Your task to perform on an android device: What's the weather today? Image 0: 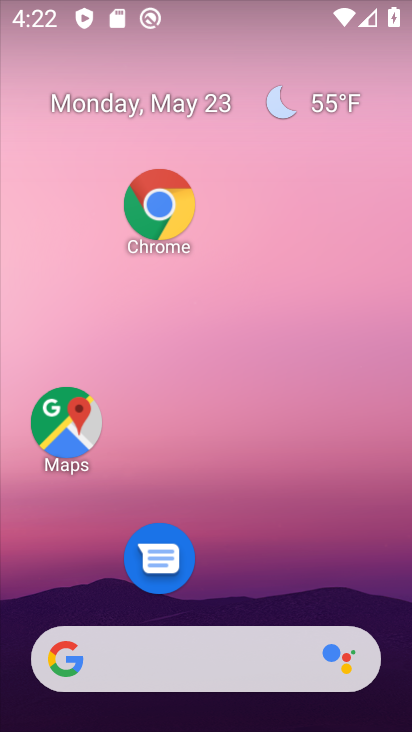
Step 0: drag from (351, 556) to (259, 39)
Your task to perform on an android device: What's the weather today? Image 1: 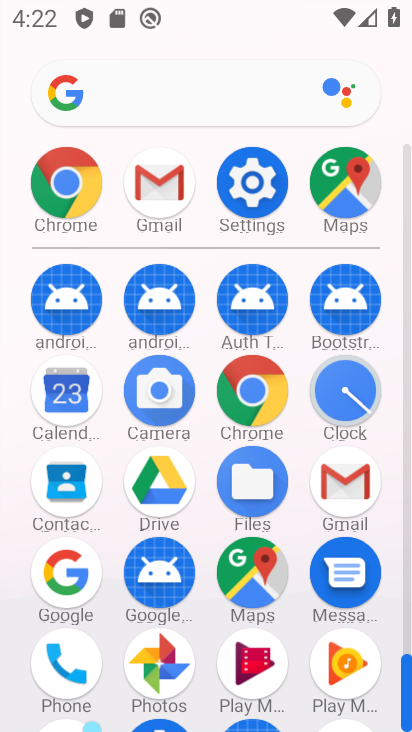
Step 1: drag from (364, 680) to (282, 137)
Your task to perform on an android device: What's the weather today? Image 2: 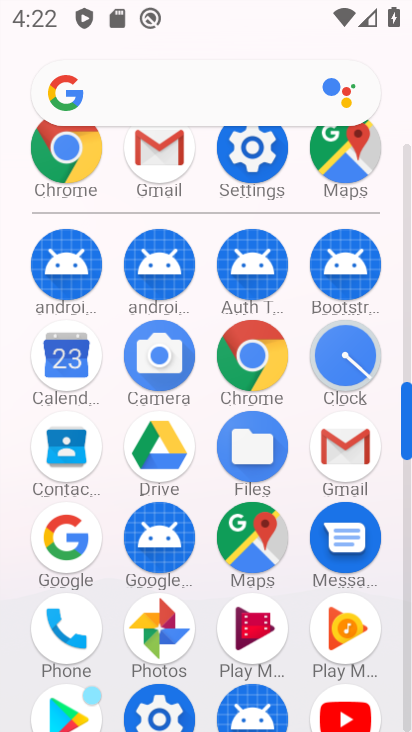
Step 2: press back button
Your task to perform on an android device: What's the weather today? Image 3: 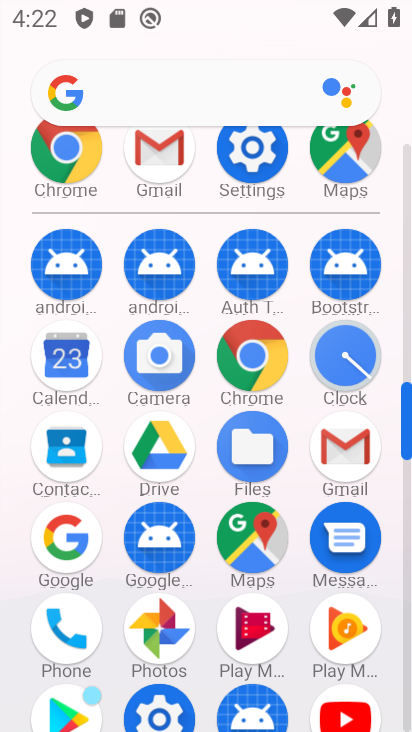
Step 3: press back button
Your task to perform on an android device: What's the weather today? Image 4: 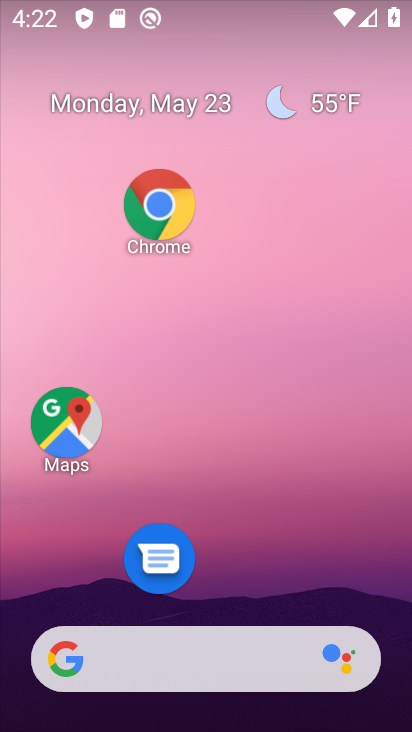
Step 4: drag from (4, 251) to (391, 315)
Your task to perform on an android device: What's the weather today? Image 5: 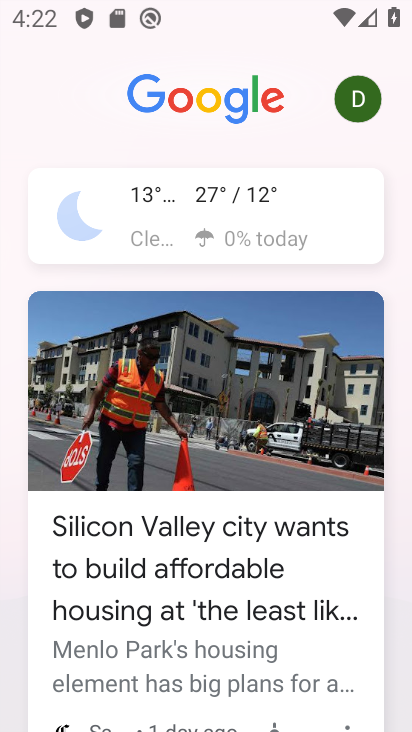
Step 5: click (159, 231)
Your task to perform on an android device: What's the weather today? Image 6: 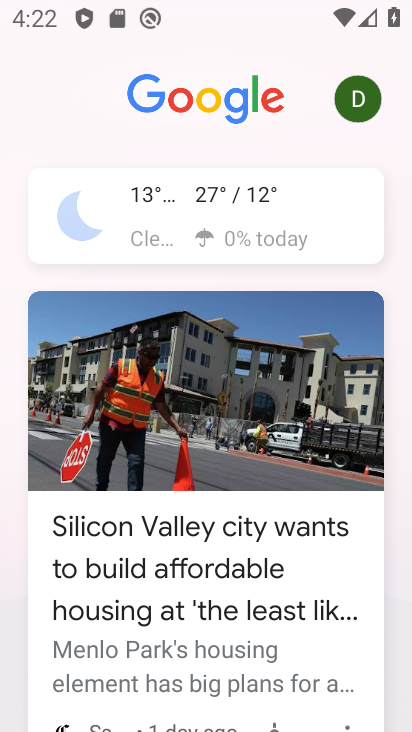
Step 6: click (159, 231)
Your task to perform on an android device: What's the weather today? Image 7: 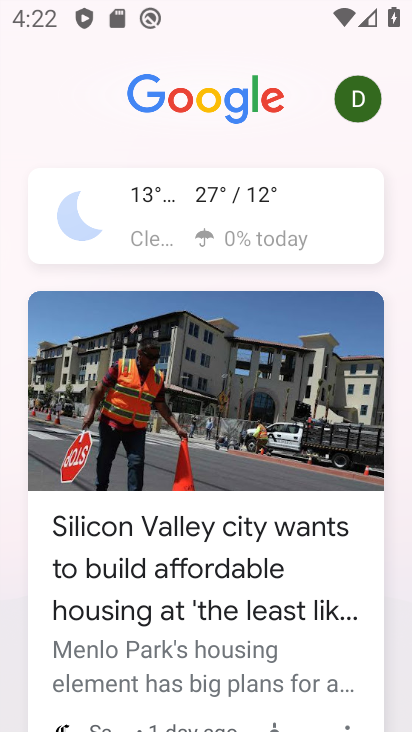
Step 7: click (161, 228)
Your task to perform on an android device: What's the weather today? Image 8: 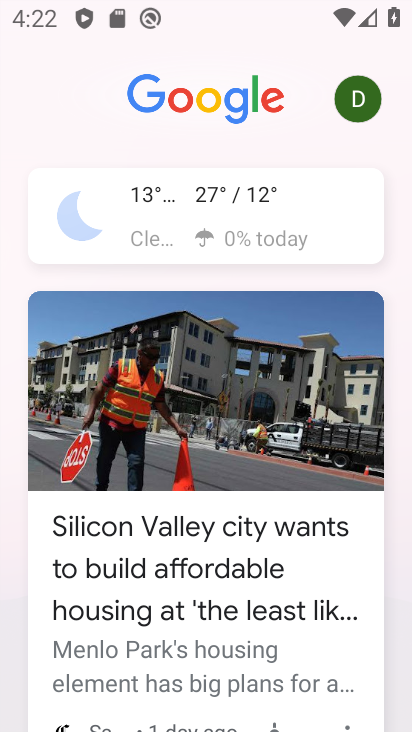
Step 8: click (171, 229)
Your task to perform on an android device: What's the weather today? Image 9: 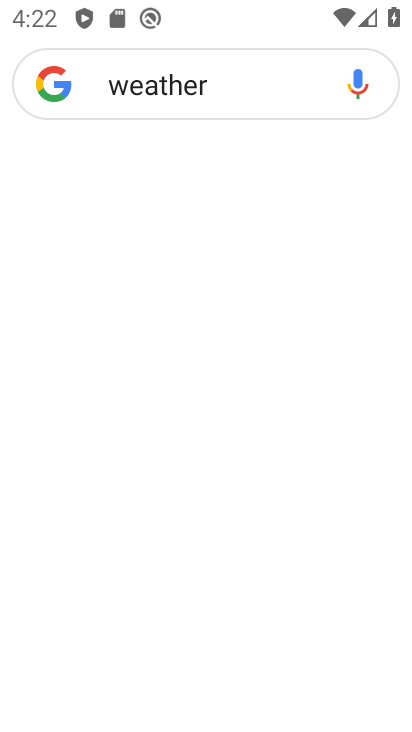
Step 9: click (182, 227)
Your task to perform on an android device: What's the weather today? Image 10: 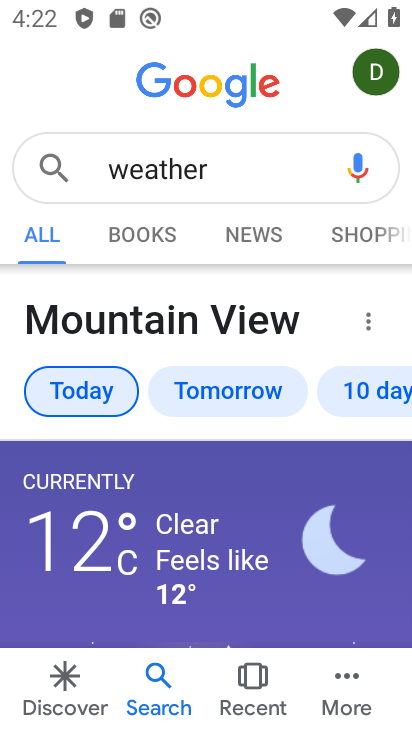
Step 10: click (212, 396)
Your task to perform on an android device: What's the weather today? Image 11: 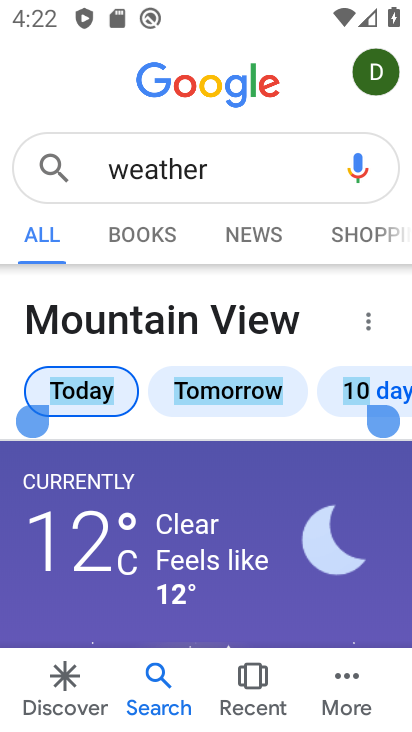
Step 11: click (212, 396)
Your task to perform on an android device: What's the weather today? Image 12: 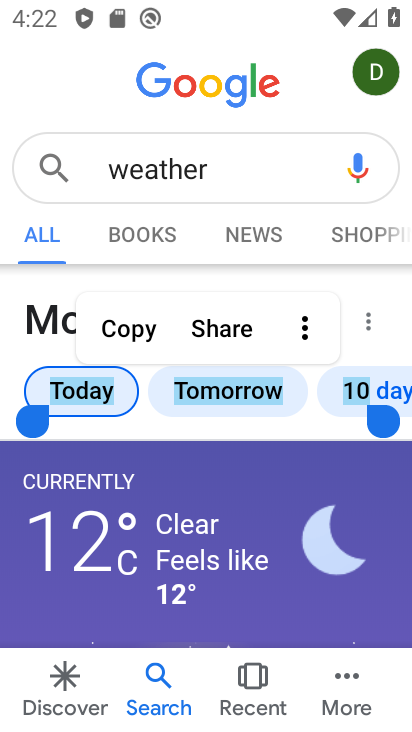
Step 12: click (212, 397)
Your task to perform on an android device: What's the weather today? Image 13: 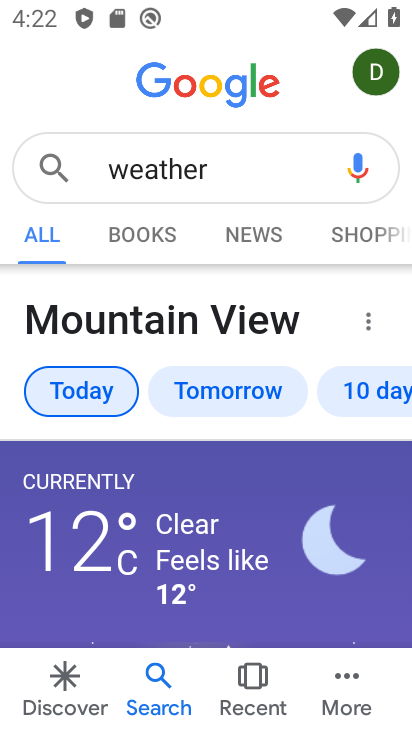
Step 13: click (219, 414)
Your task to perform on an android device: What's the weather today? Image 14: 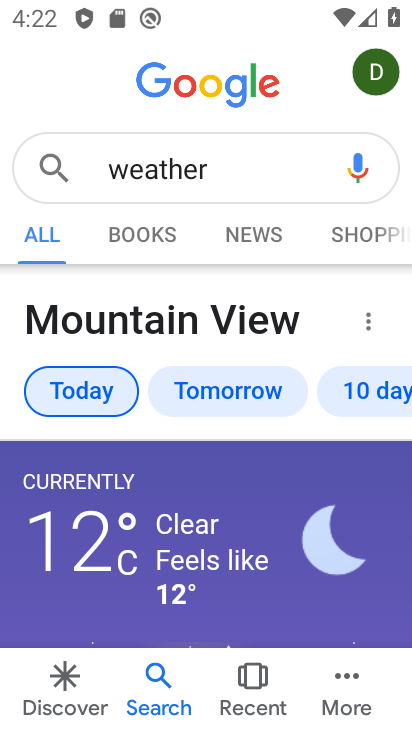
Step 14: task complete